Your task to perform on an android device: Open accessibility settings Image 0: 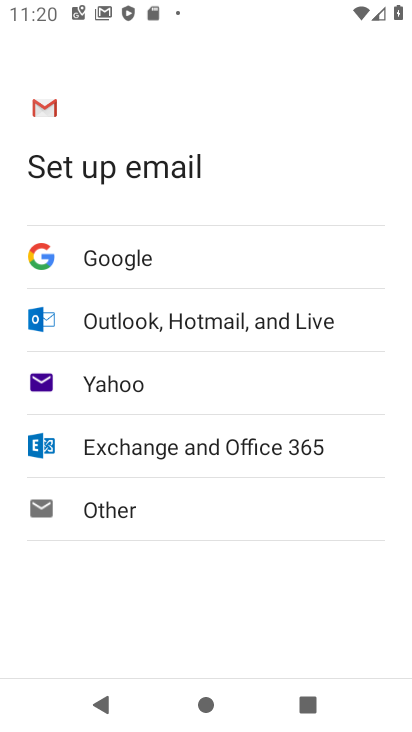
Step 0: press home button
Your task to perform on an android device: Open accessibility settings Image 1: 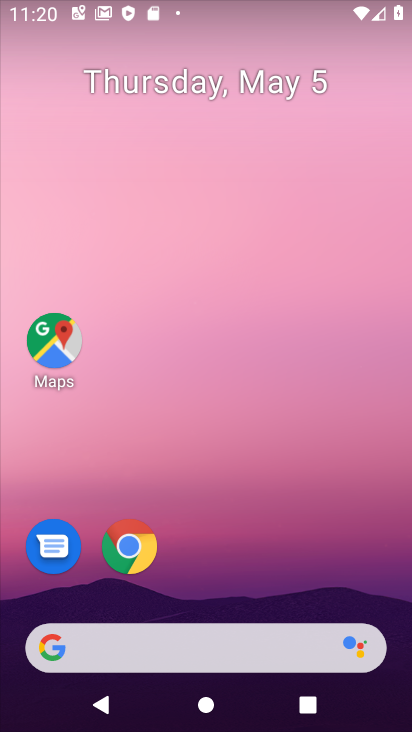
Step 1: drag from (275, 576) to (269, 123)
Your task to perform on an android device: Open accessibility settings Image 2: 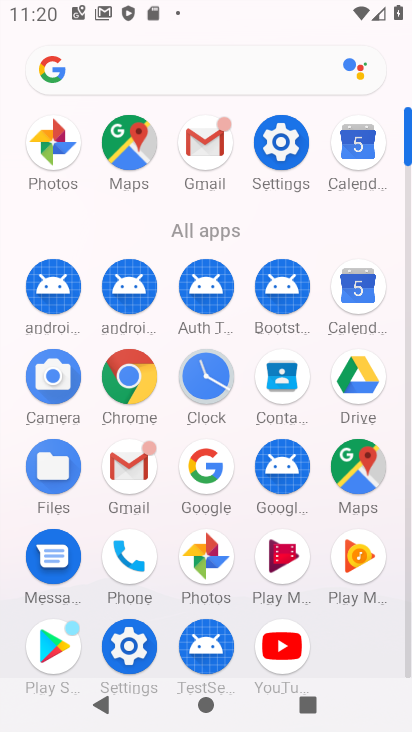
Step 2: click (285, 137)
Your task to perform on an android device: Open accessibility settings Image 3: 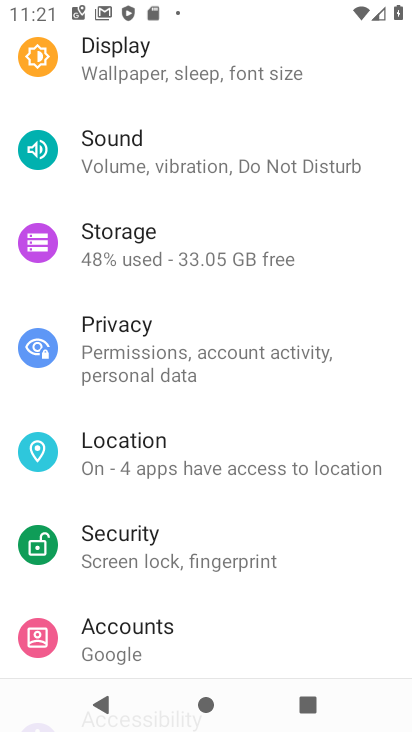
Step 3: drag from (277, 581) to (269, 204)
Your task to perform on an android device: Open accessibility settings Image 4: 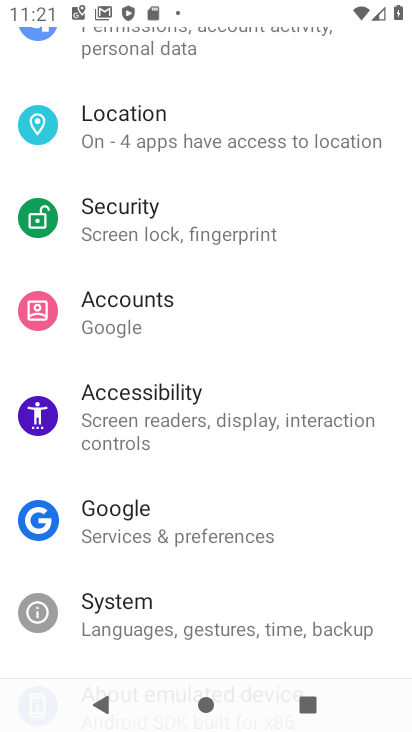
Step 4: click (211, 411)
Your task to perform on an android device: Open accessibility settings Image 5: 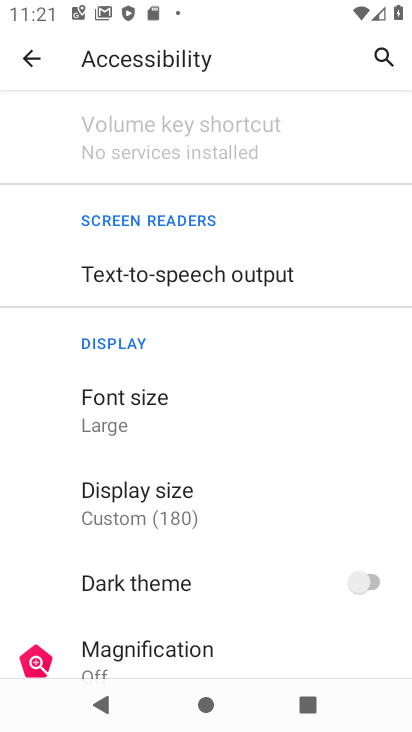
Step 5: task complete